Your task to perform on an android device: Do I have any events tomorrow? Image 0: 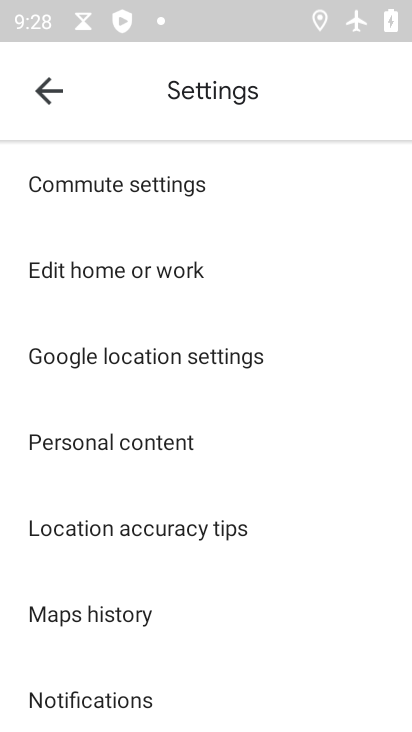
Step 0: press home button
Your task to perform on an android device: Do I have any events tomorrow? Image 1: 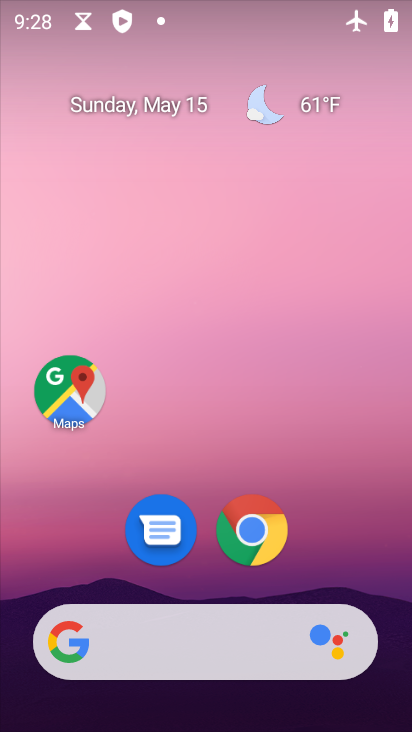
Step 1: drag from (0, 606) to (203, 193)
Your task to perform on an android device: Do I have any events tomorrow? Image 2: 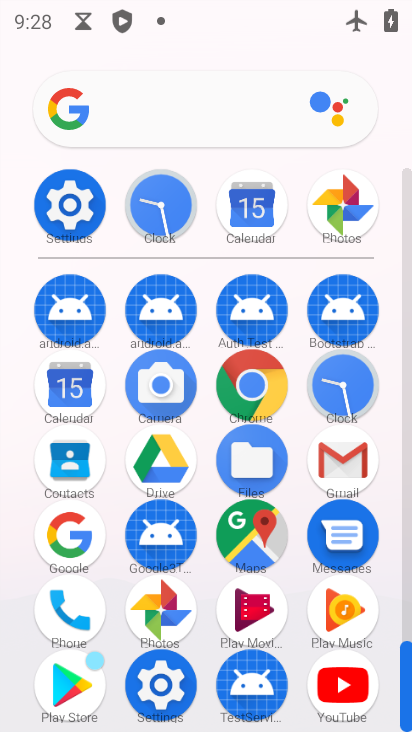
Step 2: click (62, 387)
Your task to perform on an android device: Do I have any events tomorrow? Image 3: 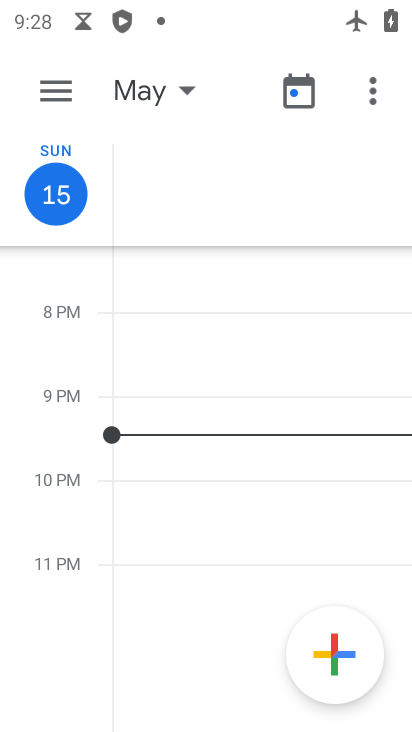
Step 3: click (55, 90)
Your task to perform on an android device: Do I have any events tomorrow? Image 4: 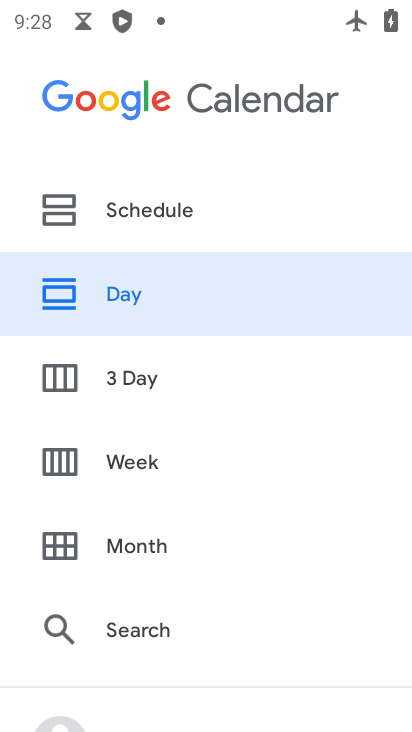
Step 4: drag from (145, 669) to (170, 183)
Your task to perform on an android device: Do I have any events tomorrow? Image 5: 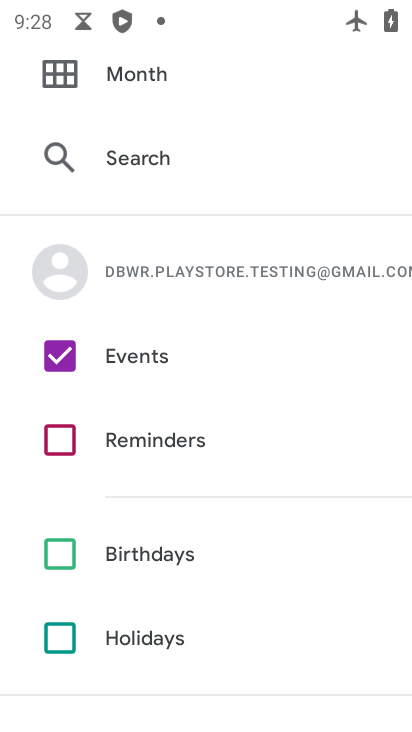
Step 5: drag from (241, 106) to (226, 506)
Your task to perform on an android device: Do I have any events tomorrow? Image 6: 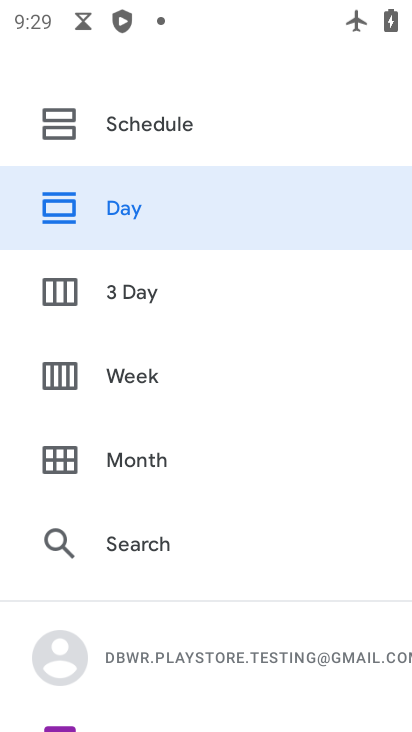
Step 6: click (145, 125)
Your task to perform on an android device: Do I have any events tomorrow? Image 7: 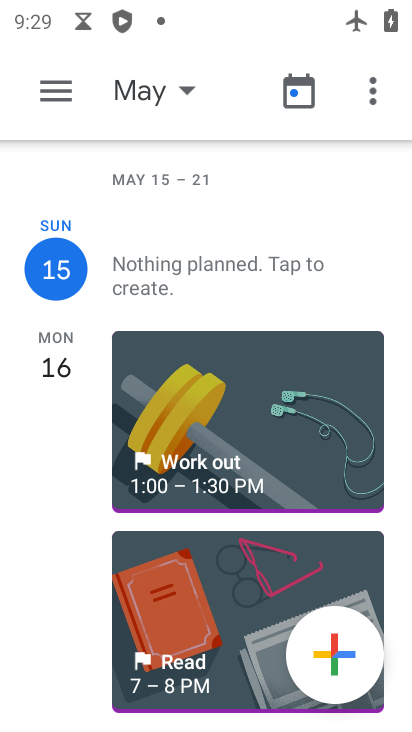
Step 7: click (140, 86)
Your task to perform on an android device: Do I have any events tomorrow? Image 8: 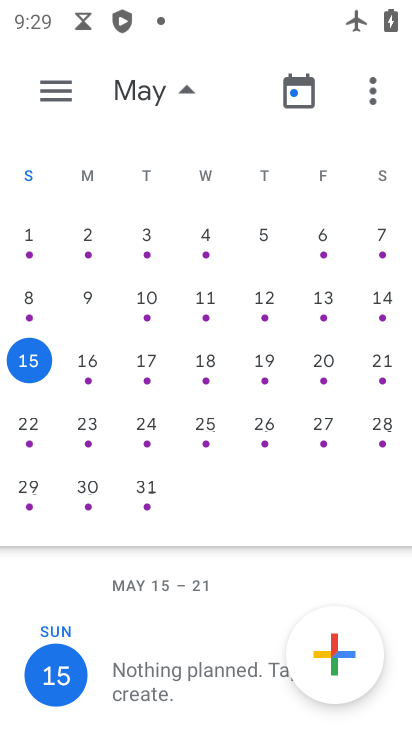
Step 8: click (90, 356)
Your task to perform on an android device: Do I have any events tomorrow? Image 9: 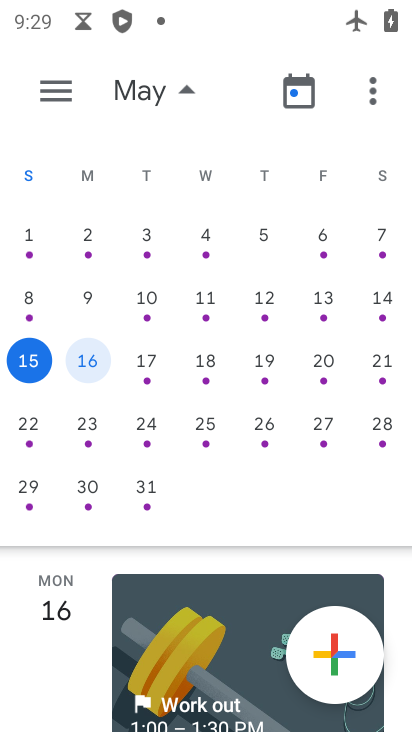
Step 9: click (188, 92)
Your task to perform on an android device: Do I have any events tomorrow? Image 10: 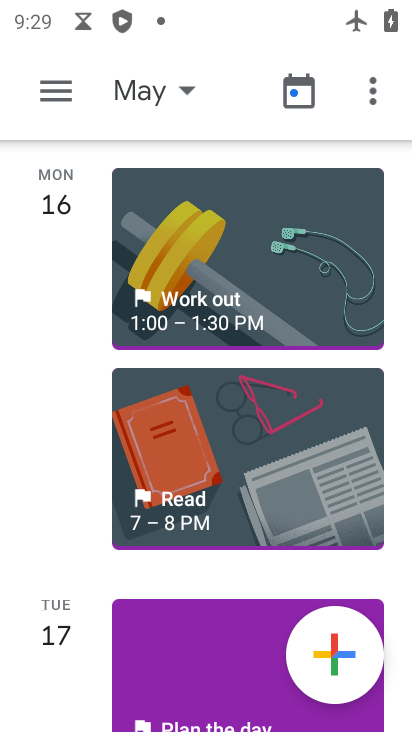
Step 10: task complete